Your task to perform on an android device: move a message to another label in the gmail app Image 0: 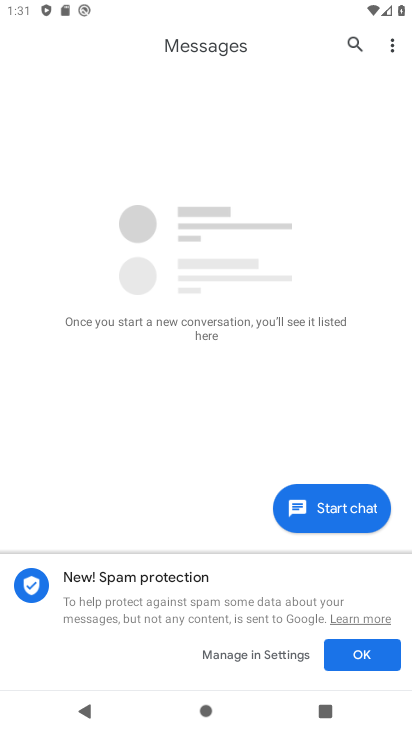
Step 0: press home button
Your task to perform on an android device: move a message to another label in the gmail app Image 1: 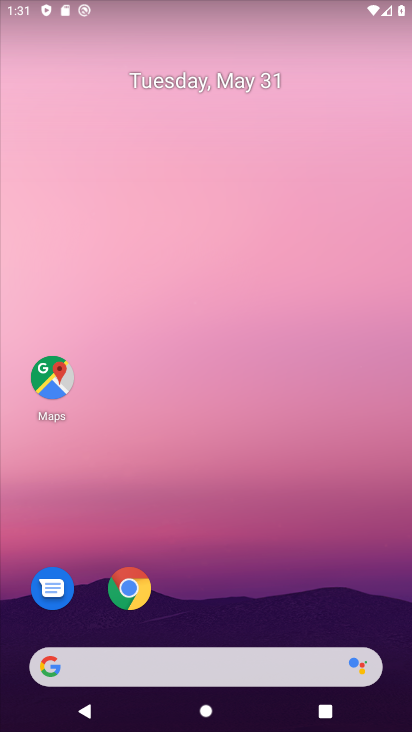
Step 1: drag from (240, 616) to (193, 142)
Your task to perform on an android device: move a message to another label in the gmail app Image 2: 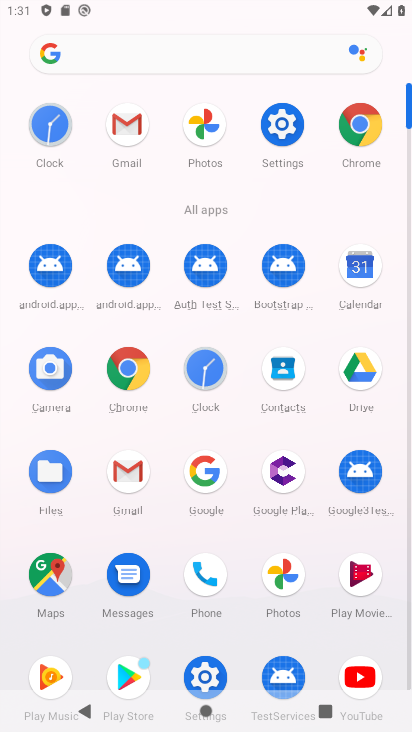
Step 2: click (126, 465)
Your task to perform on an android device: move a message to another label in the gmail app Image 3: 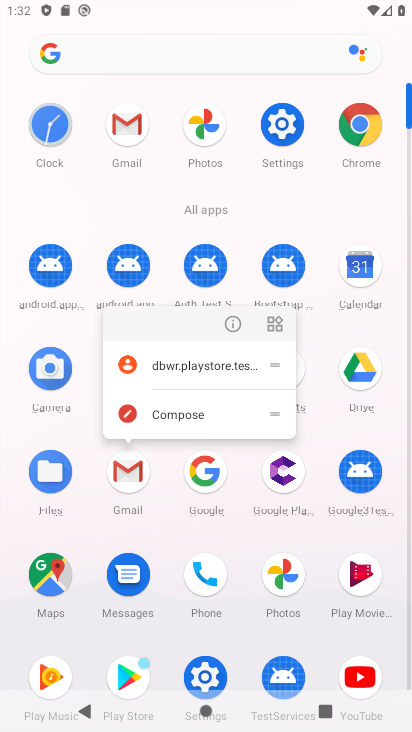
Step 3: click (126, 465)
Your task to perform on an android device: move a message to another label in the gmail app Image 4: 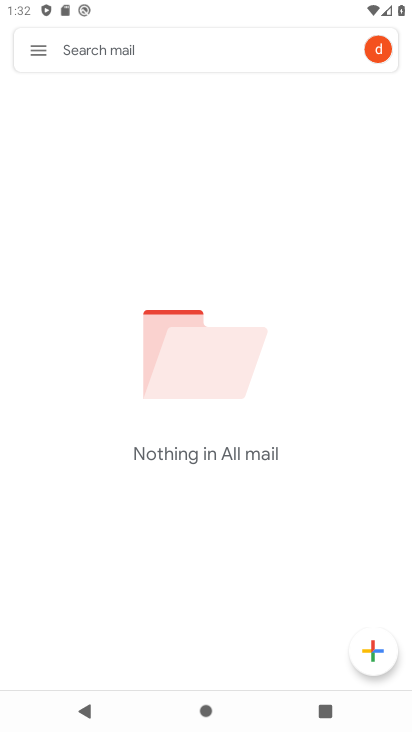
Step 4: task complete